Your task to perform on an android device: toggle pop-ups in chrome Image 0: 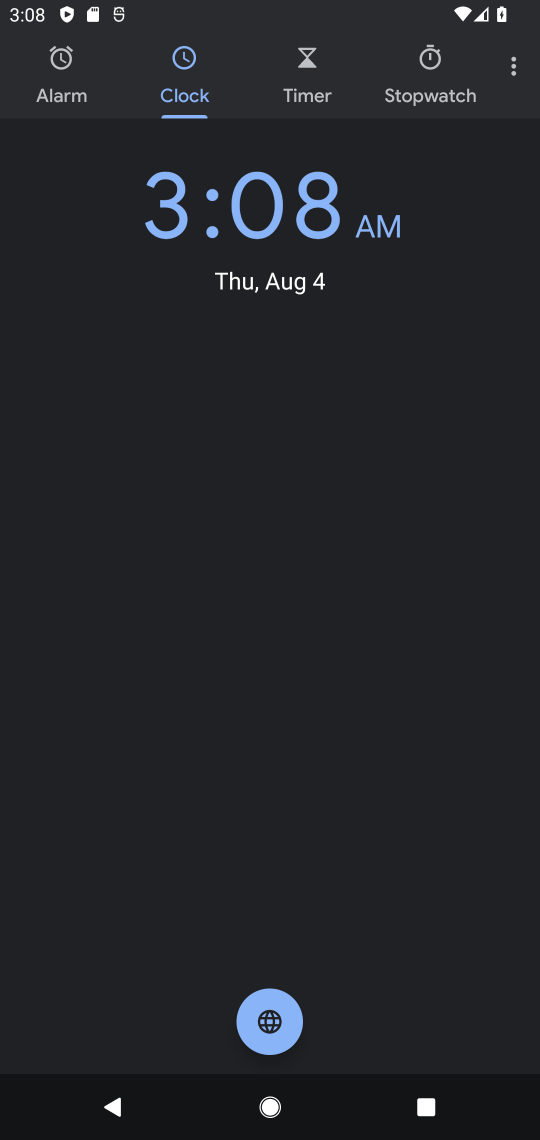
Step 0: press home button
Your task to perform on an android device: toggle pop-ups in chrome Image 1: 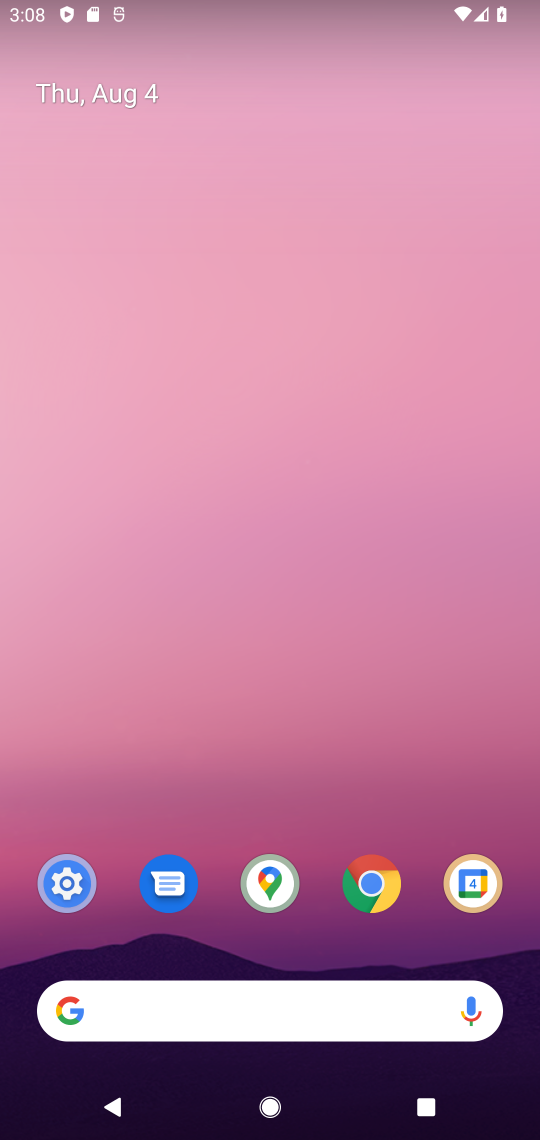
Step 1: drag from (431, 837) to (218, 27)
Your task to perform on an android device: toggle pop-ups in chrome Image 2: 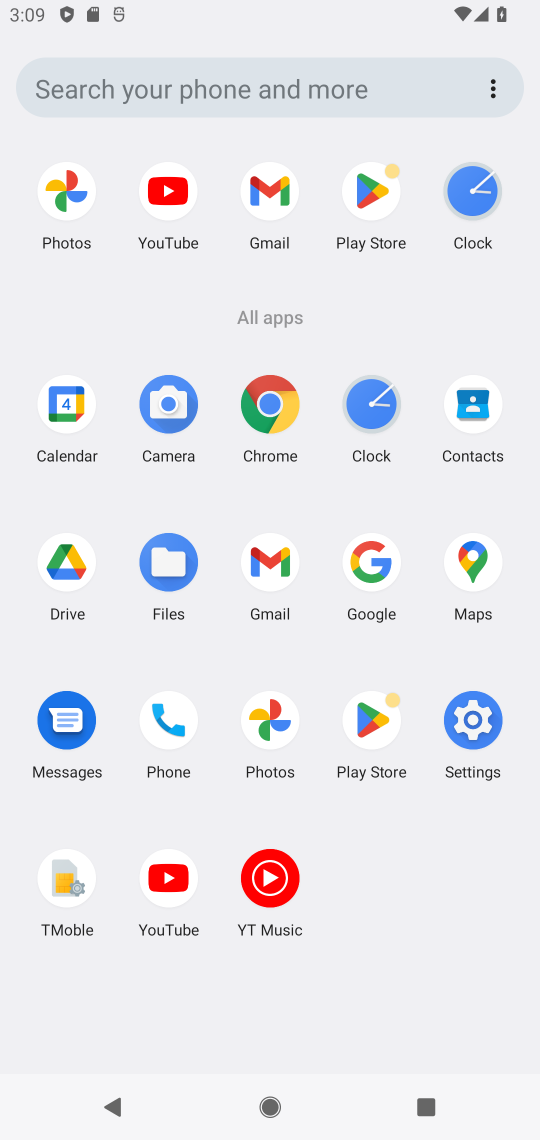
Step 2: click (272, 420)
Your task to perform on an android device: toggle pop-ups in chrome Image 3: 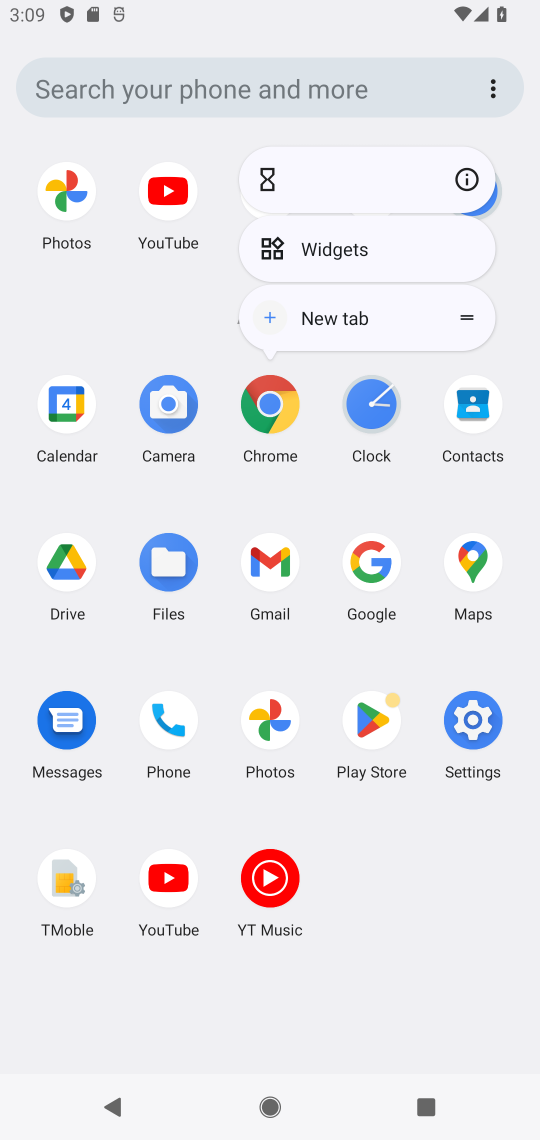
Step 3: click (272, 420)
Your task to perform on an android device: toggle pop-ups in chrome Image 4: 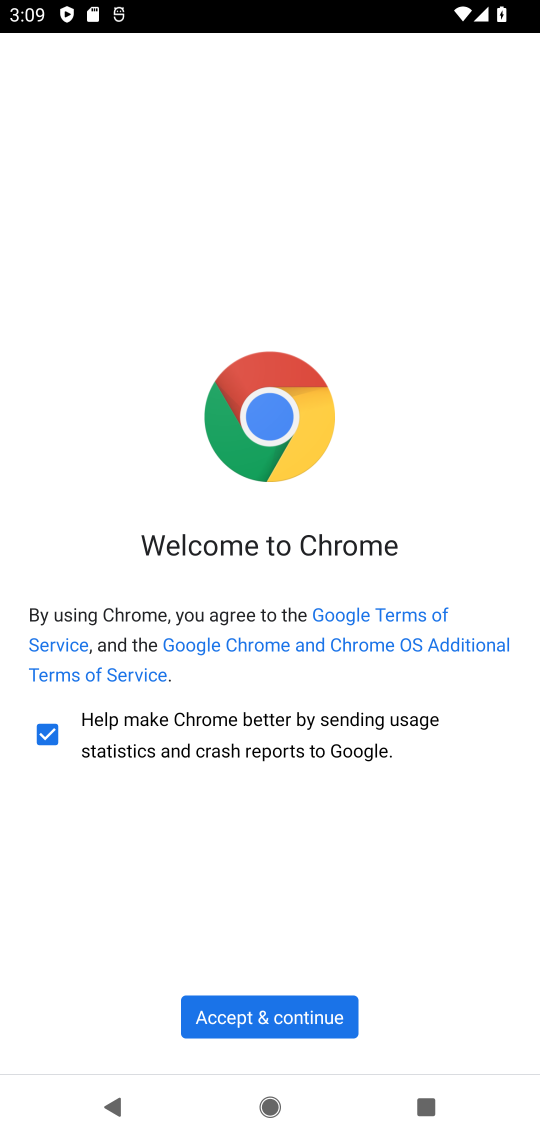
Step 4: click (307, 1010)
Your task to perform on an android device: toggle pop-ups in chrome Image 5: 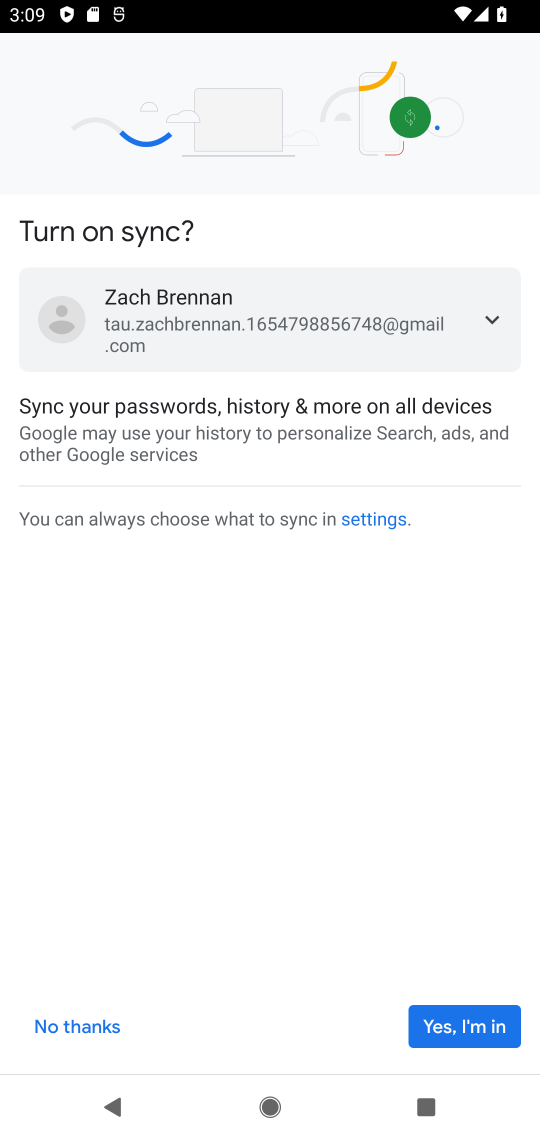
Step 5: click (435, 1030)
Your task to perform on an android device: toggle pop-ups in chrome Image 6: 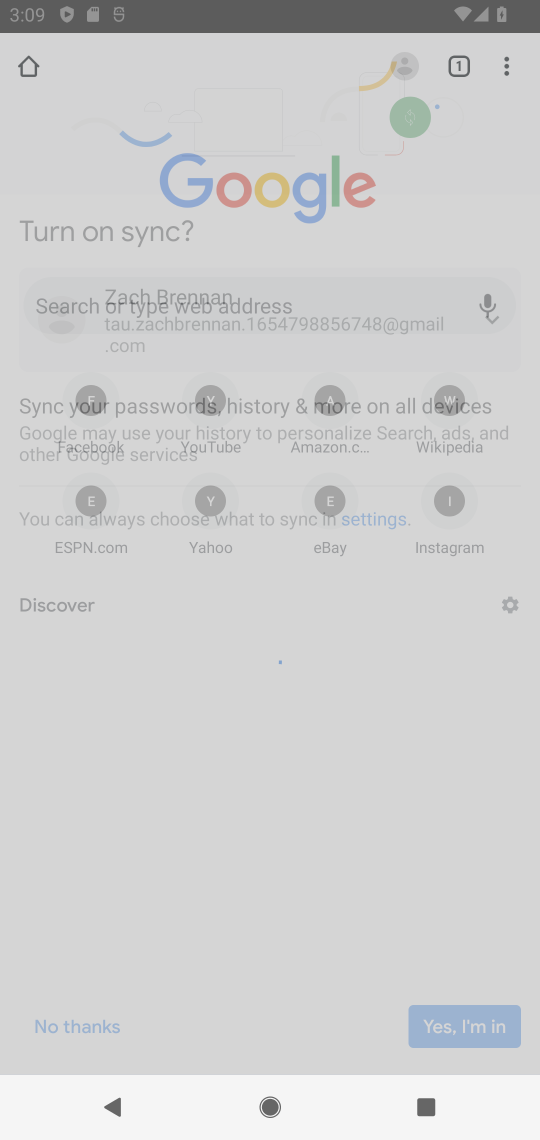
Step 6: click (435, 1030)
Your task to perform on an android device: toggle pop-ups in chrome Image 7: 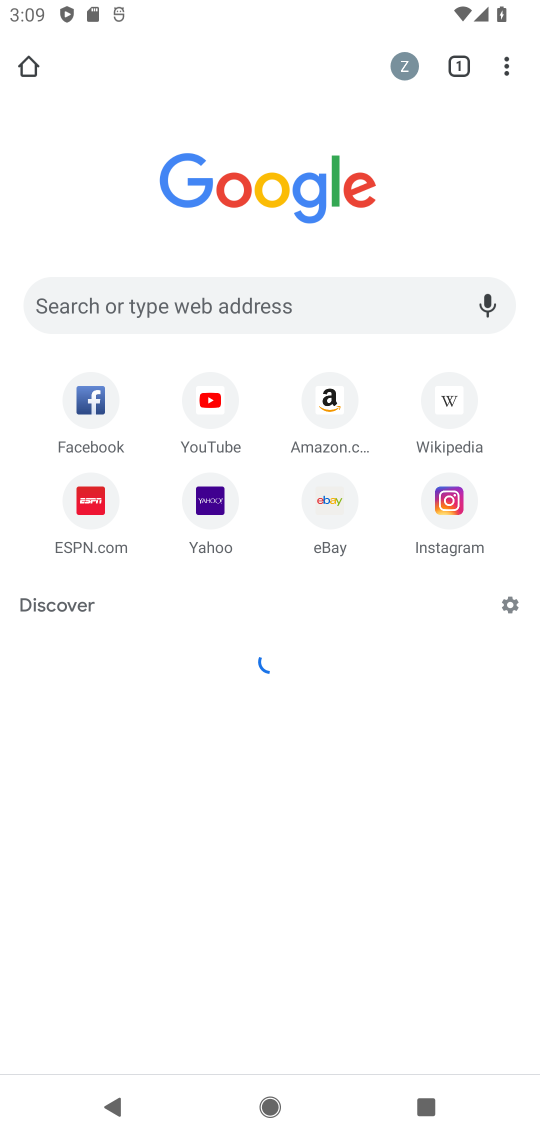
Step 7: click (502, 66)
Your task to perform on an android device: toggle pop-ups in chrome Image 8: 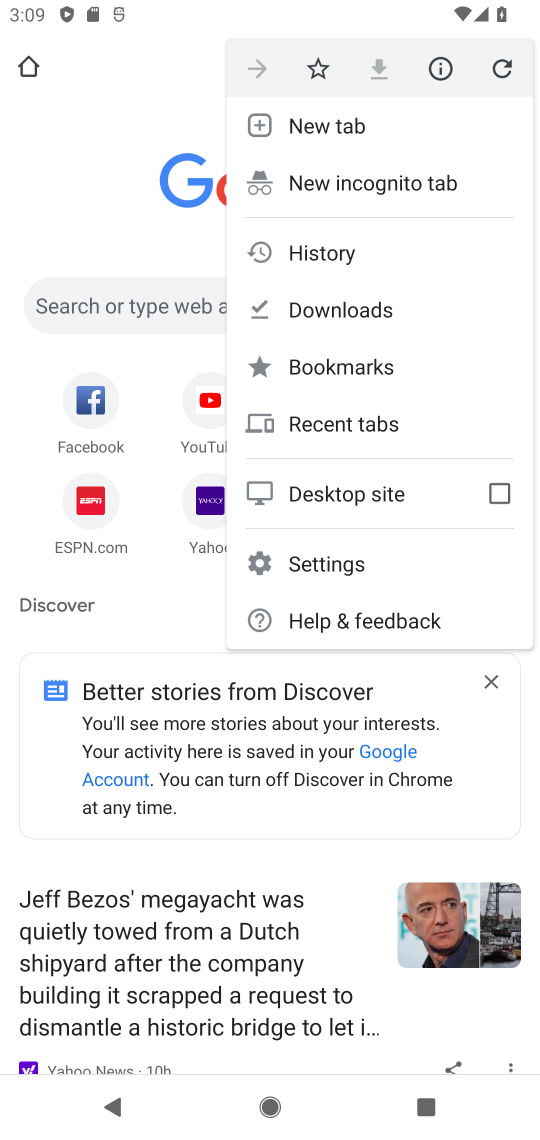
Step 8: click (294, 560)
Your task to perform on an android device: toggle pop-ups in chrome Image 9: 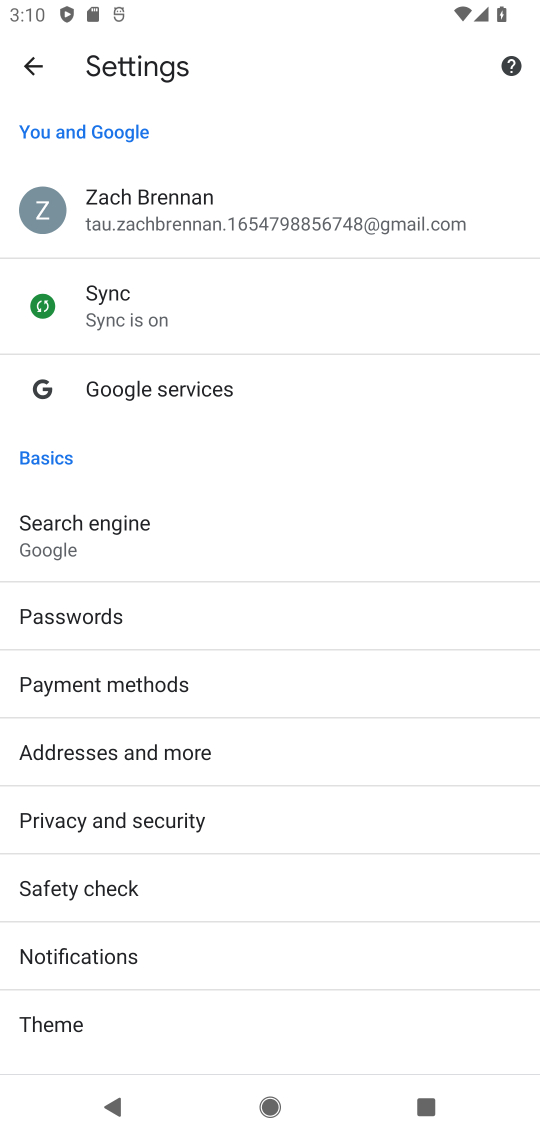
Step 9: drag from (225, 942) to (143, 222)
Your task to perform on an android device: toggle pop-ups in chrome Image 10: 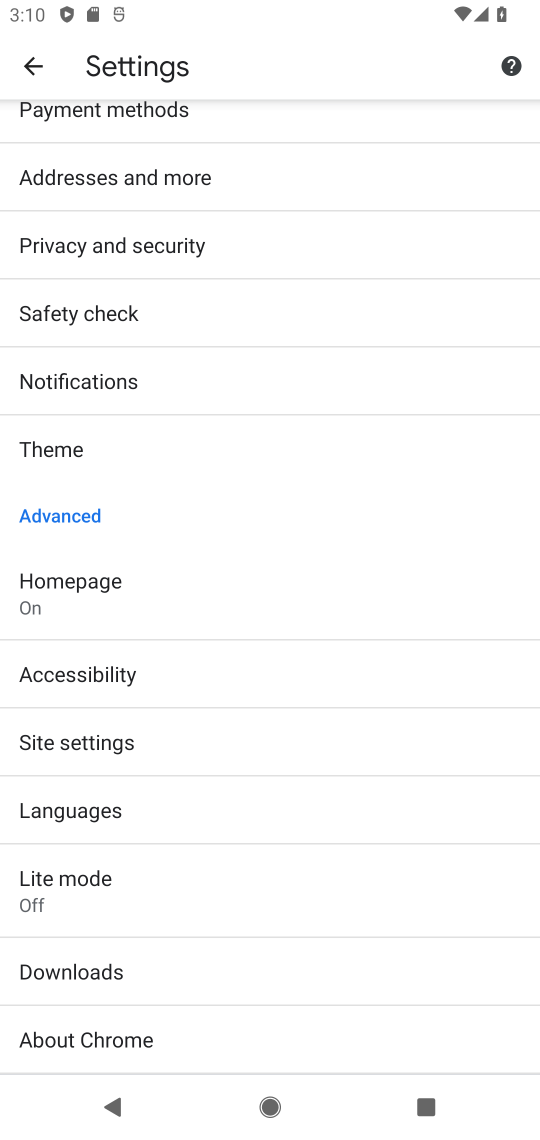
Step 10: click (151, 755)
Your task to perform on an android device: toggle pop-ups in chrome Image 11: 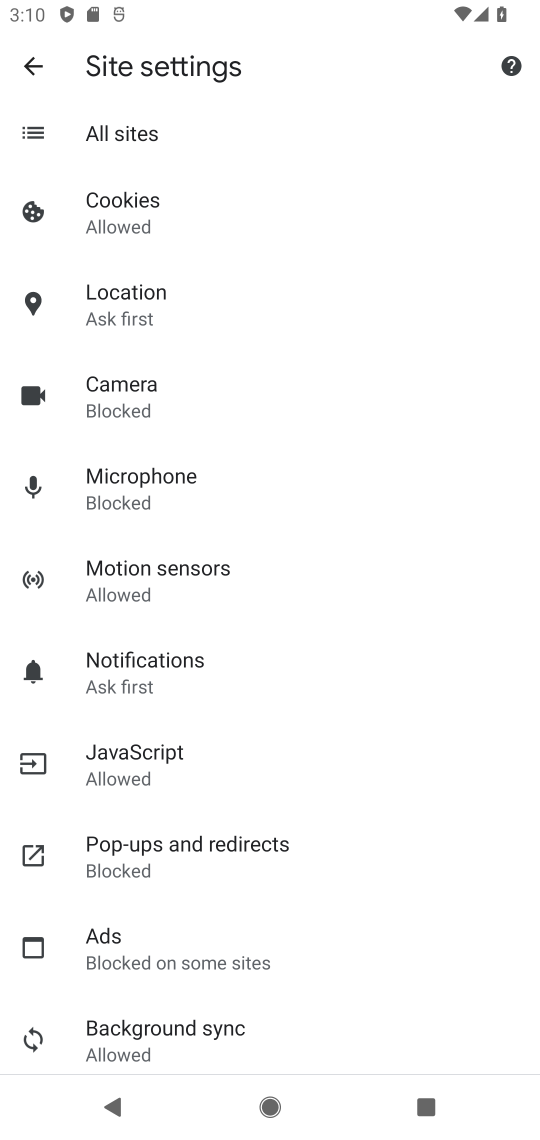
Step 11: click (185, 841)
Your task to perform on an android device: toggle pop-ups in chrome Image 12: 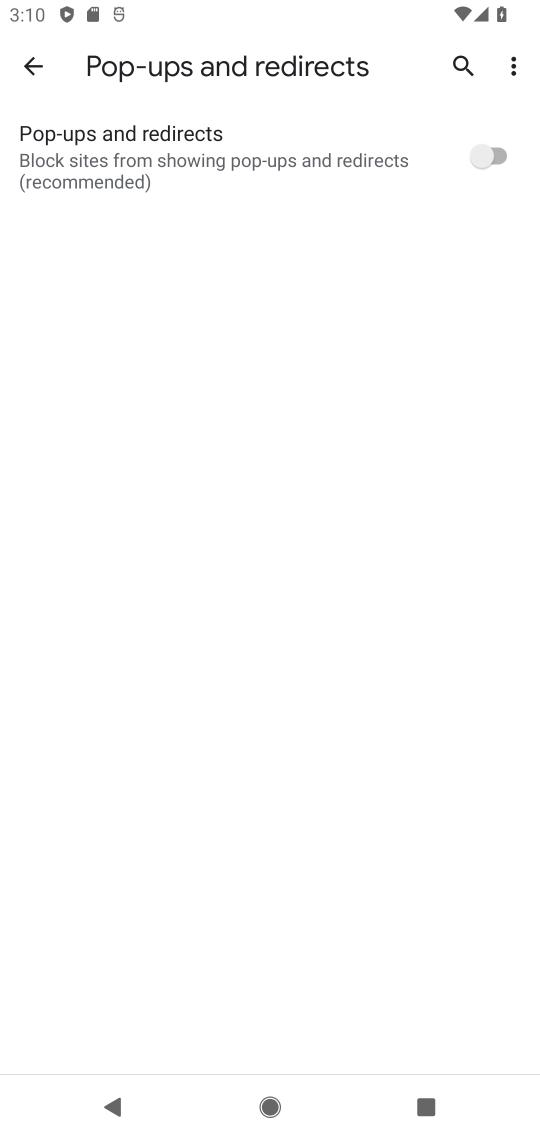
Step 12: click (518, 160)
Your task to perform on an android device: toggle pop-ups in chrome Image 13: 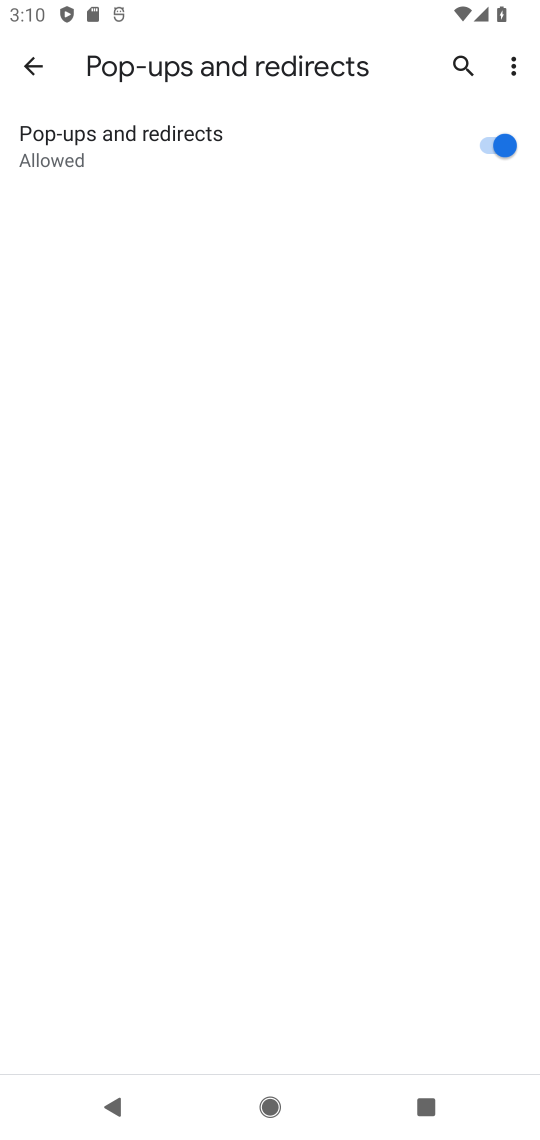
Step 13: task complete